Your task to perform on an android device: Turn off the flashlight Image 0: 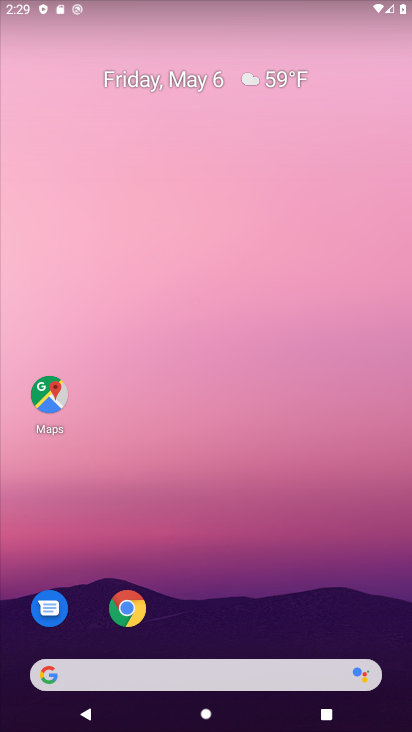
Step 0: drag from (180, 3) to (264, 494)
Your task to perform on an android device: Turn off the flashlight Image 1: 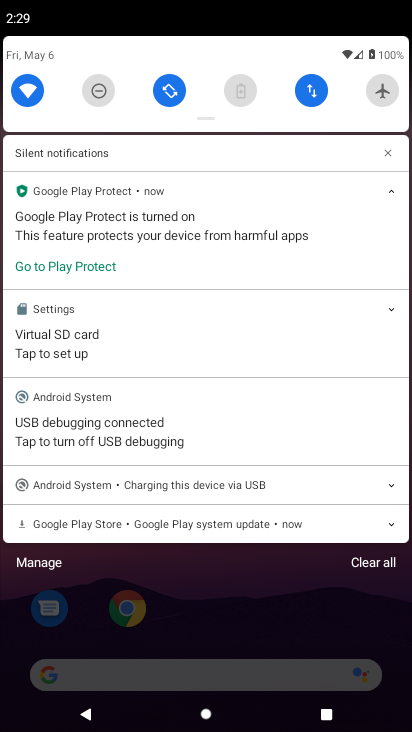
Step 1: drag from (347, 110) to (387, 647)
Your task to perform on an android device: Turn off the flashlight Image 2: 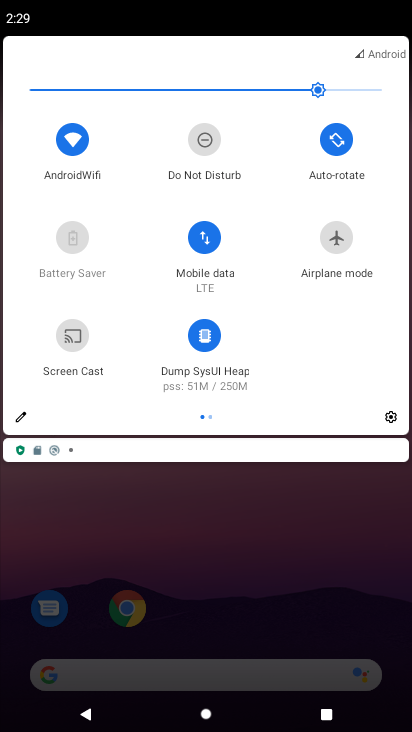
Step 2: drag from (335, 362) to (0, 388)
Your task to perform on an android device: Turn off the flashlight Image 3: 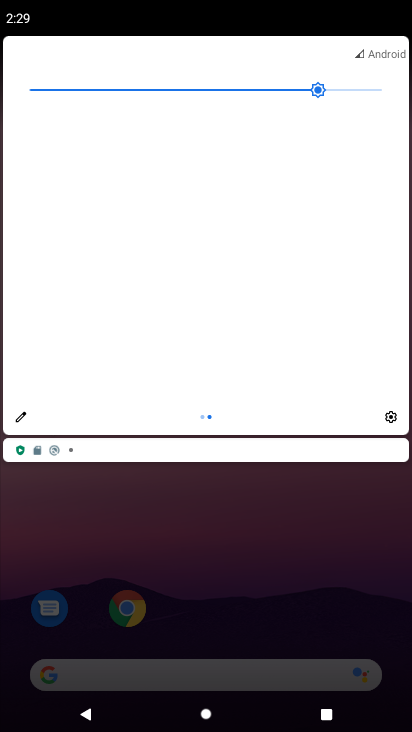
Step 3: click (20, 416)
Your task to perform on an android device: Turn off the flashlight Image 4: 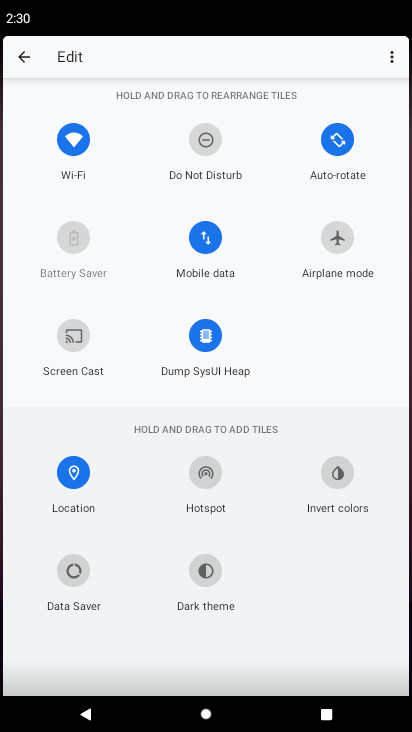
Step 4: task complete